Your task to perform on an android device: Open settings Image 0: 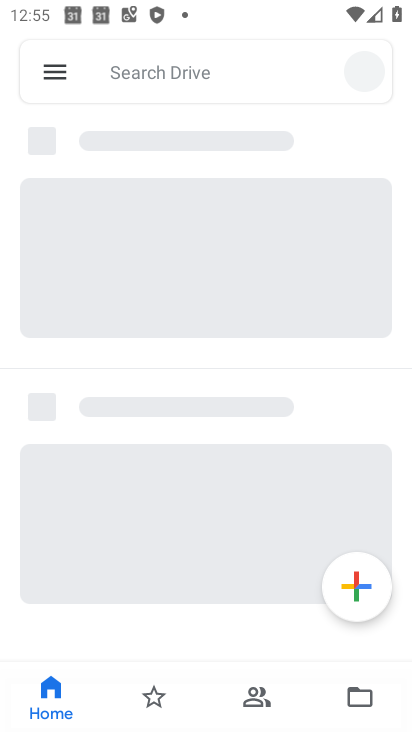
Step 0: press home button
Your task to perform on an android device: Open settings Image 1: 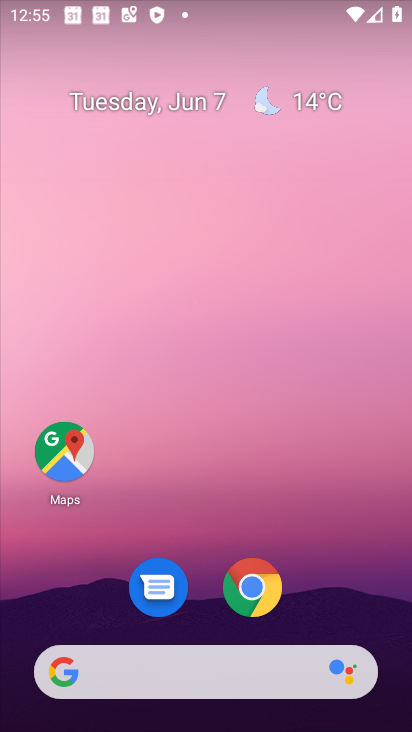
Step 1: drag from (272, 680) to (317, 86)
Your task to perform on an android device: Open settings Image 2: 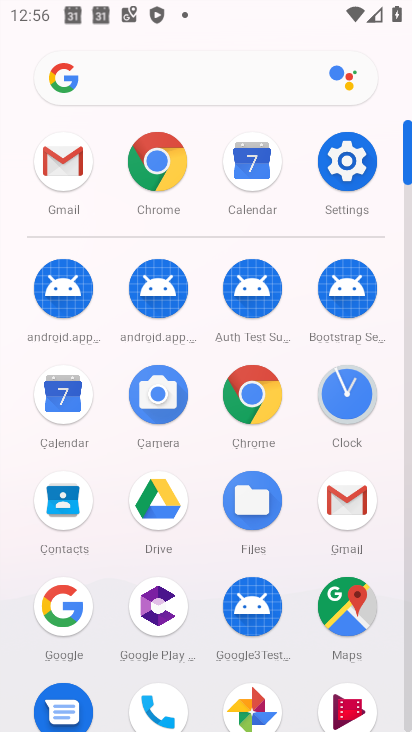
Step 2: click (357, 169)
Your task to perform on an android device: Open settings Image 3: 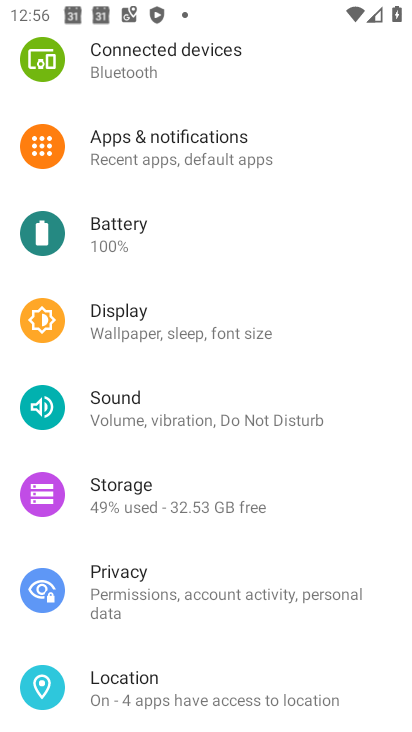
Step 3: task complete